Your task to perform on an android device: install app "Contacts" Image 0: 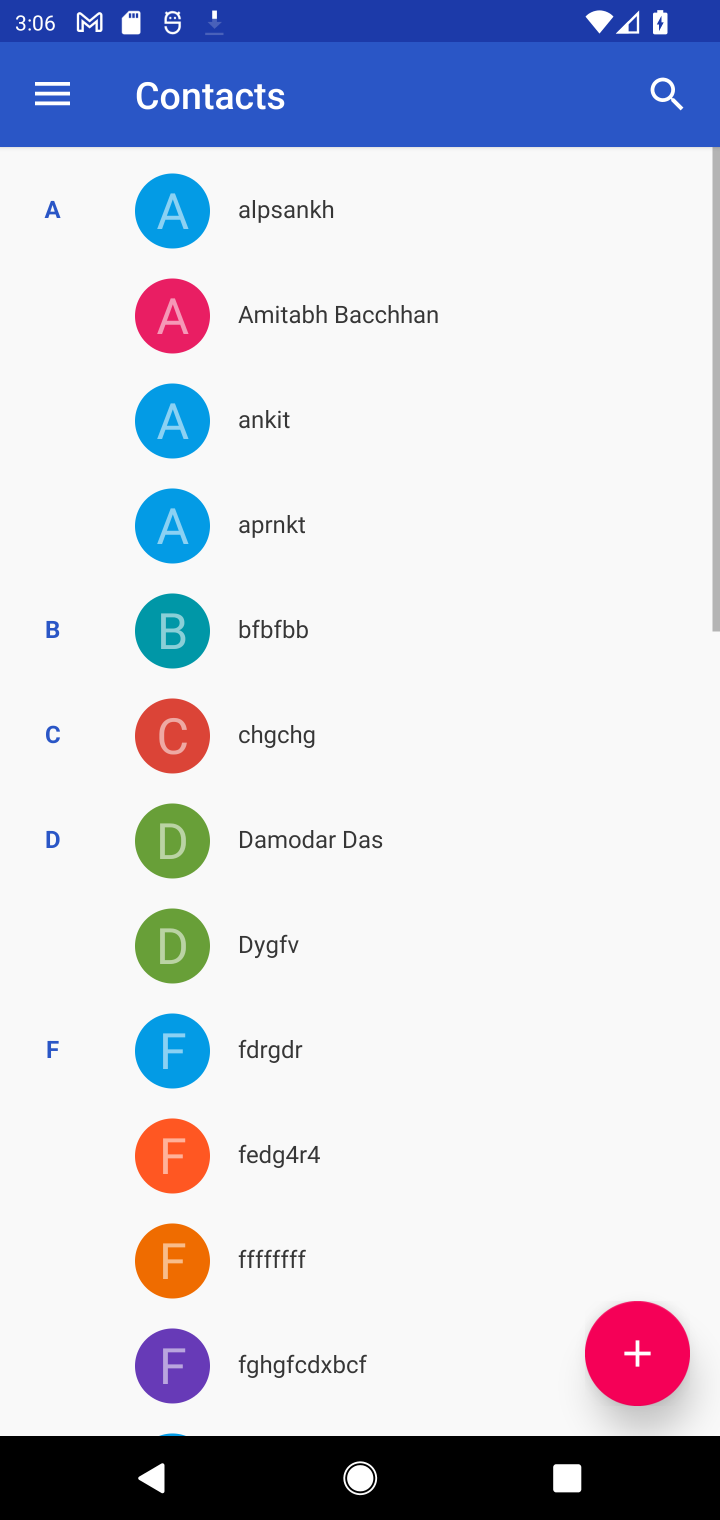
Step 0: task complete